Your task to perform on an android device: clear all cookies in the chrome app Image 0: 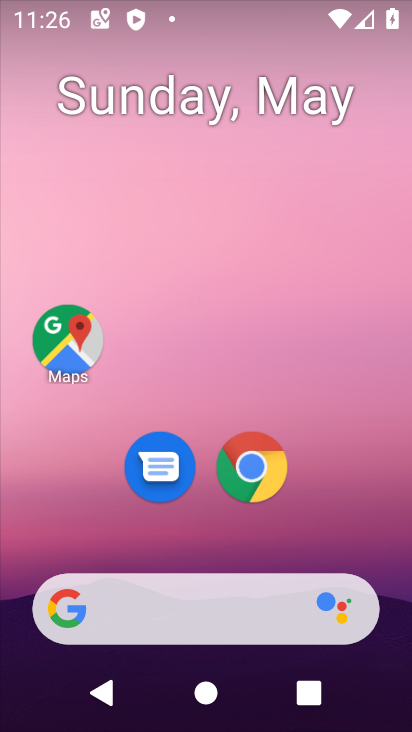
Step 0: click (261, 475)
Your task to perform on an android device: clear all cookies in the chrome app Image 1: 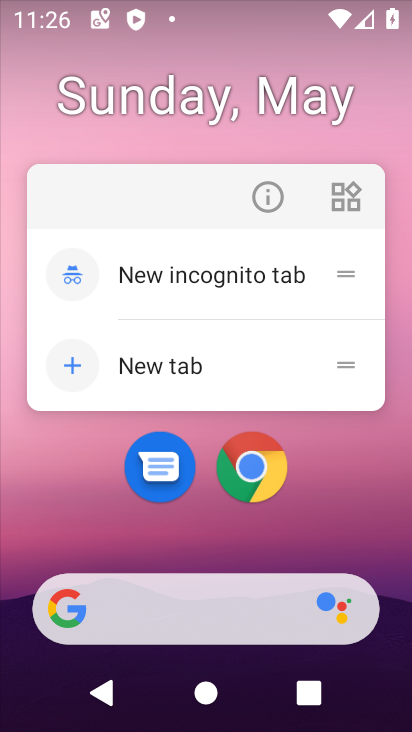
Step 1: click (255, 470)
Your task to perform on an android device: clear all cookies in the chrome app Image 2: 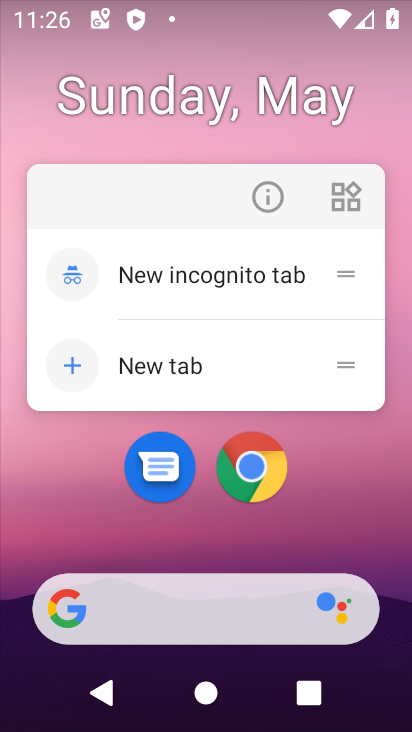
Step 2: click (261, 472)
Your task to perform on an android device: clear all cookies in the chrome app Image 3: 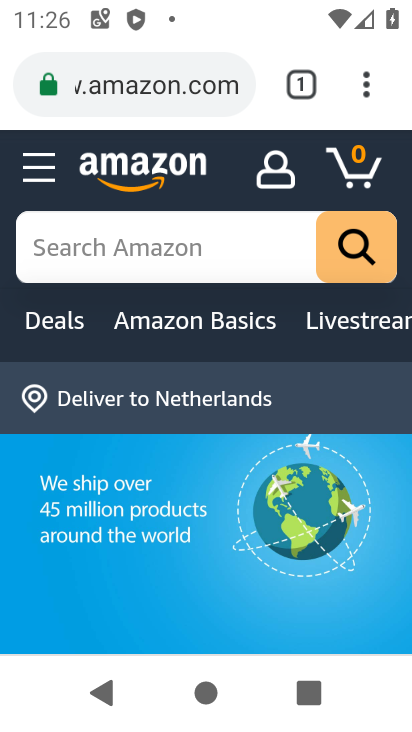
Step 3: click (364, 87)
Your task to perform on an android device: clear all cookies in the chrome app Image 4: 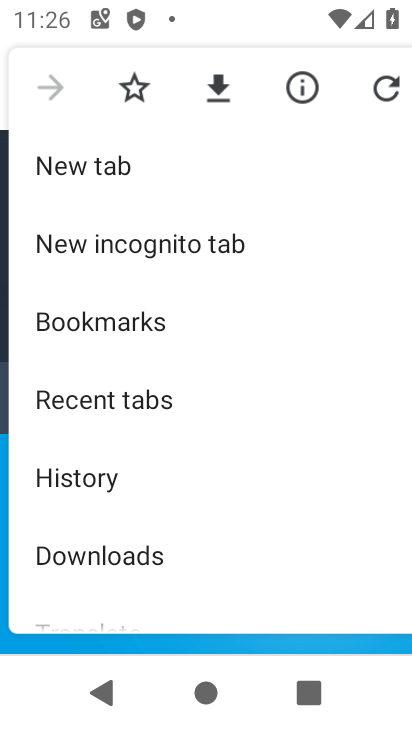
Step 4: drag from (247, 554) to (250, 127)
Your task to perform on an android device: clear all cookies in the chrome app Image 5: 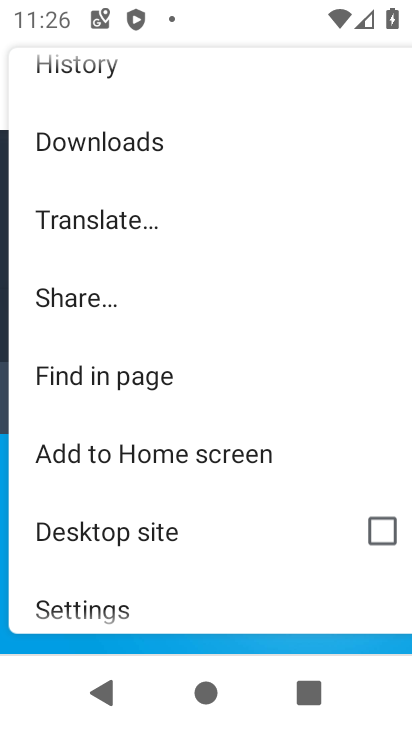
Step 5: click (103, 609)
Your task to perform on an android device: clear all cookies in the chrome app Image 6: 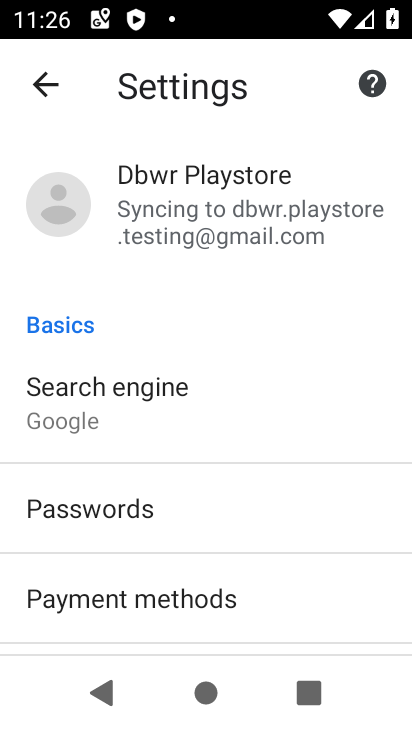
Step 6: drag from (276, 510) to (267, 125)
Your task to perform on an android device: clear all cookies in the chrome app Image 7: 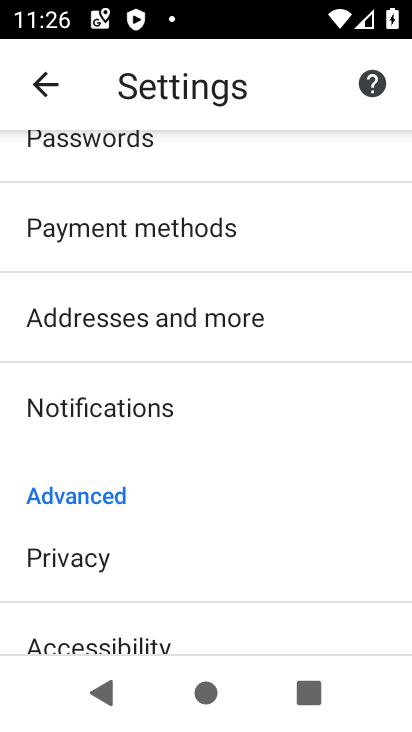
Step 7: drag from (261, 281) to (255, 175)
Your task to perform on an android device: clear all cookies in the chrome app Image 8: 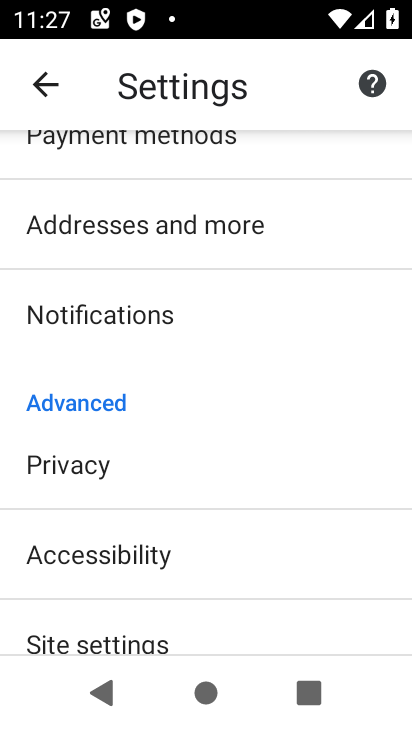
Step 8: click (91, 469)
Your task to perform on an android device: clear all cookies in the chrome app Image 9: 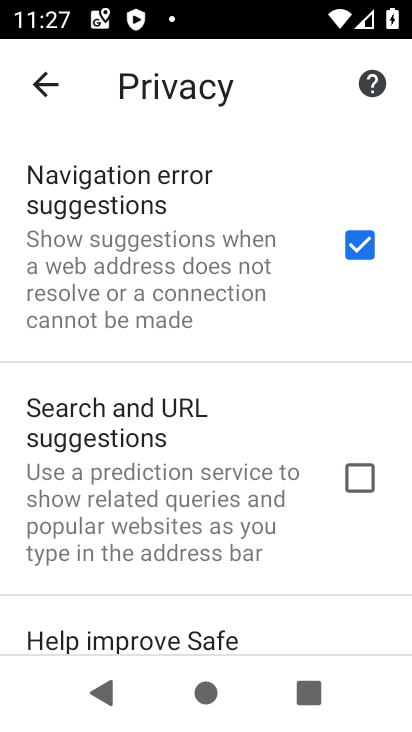
Step 9: drag from (191, 548) to (190, 117)
Your task to perform on an android device: clear all cookies in the chrome app Image 10: 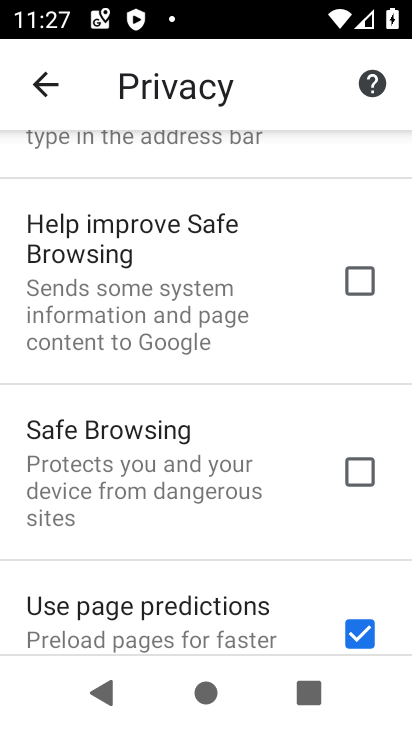
Step 10: drag from (162, 592) to (148, 58)
Your task to perform on an android device: clear all cookies in the chrome app Image 11: 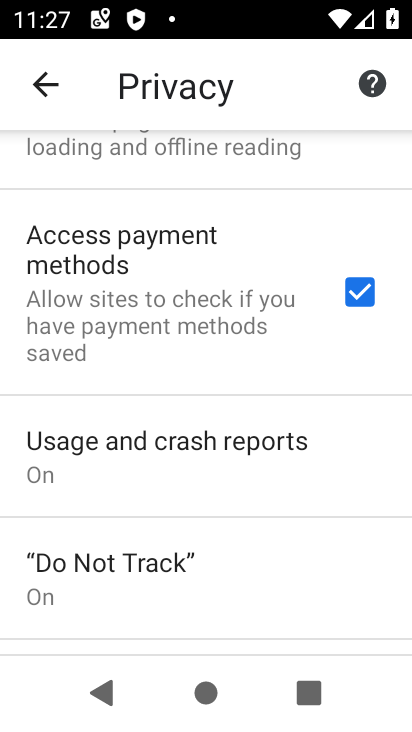
Step 11: drag from (121, 504) to (127, 88)
Your task to perform on an android device: clear all cookies in the chrome app Image 12: 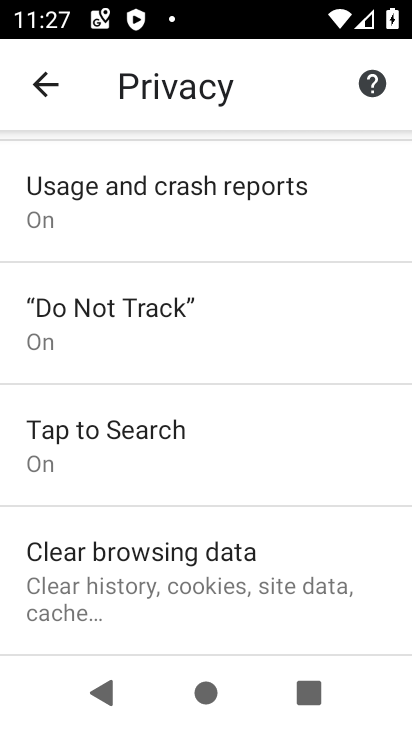
Step 12: click (107, 576)
Your task to perform on an android device: clear all cookies in the chrome app Image 13: 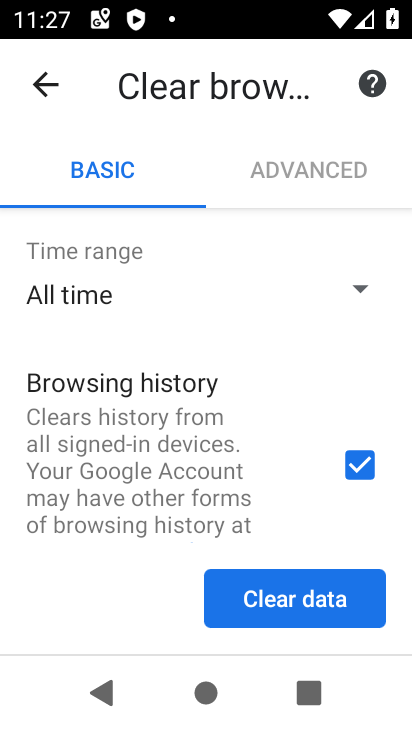
Step 13: click (359, 471)
Your task to perform on an android device: clear all cookies in the chrome app Image 14: 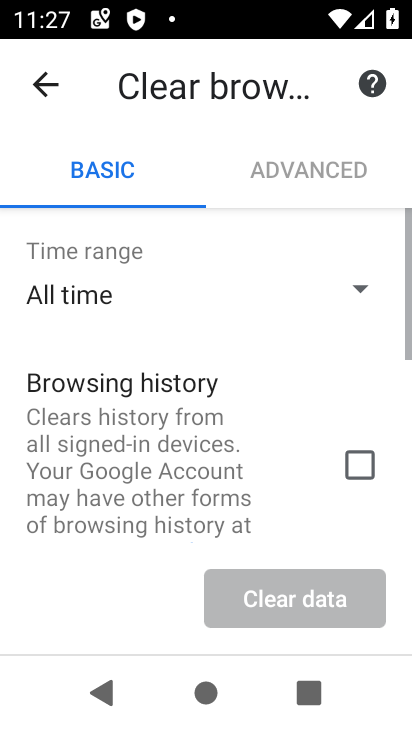
Step 14: drag from (126, 478) to (117, 72)
Your task to perform on an android device: clear all cookies in the chrome app Image 15: 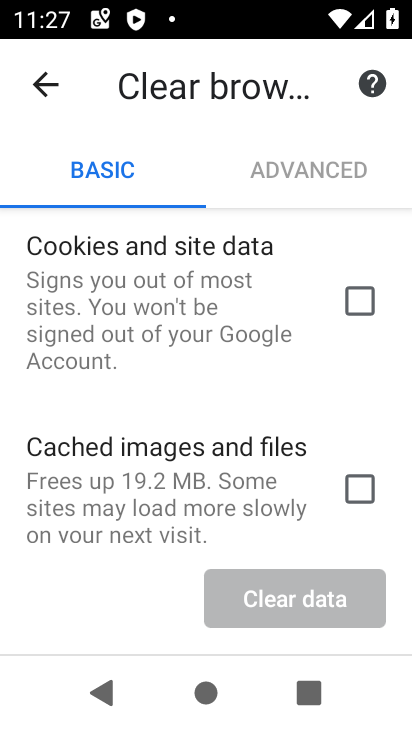
Step 15: click (361, 286)
Your task to perform on an android device: clear all cookies in the chrome app Image 16: 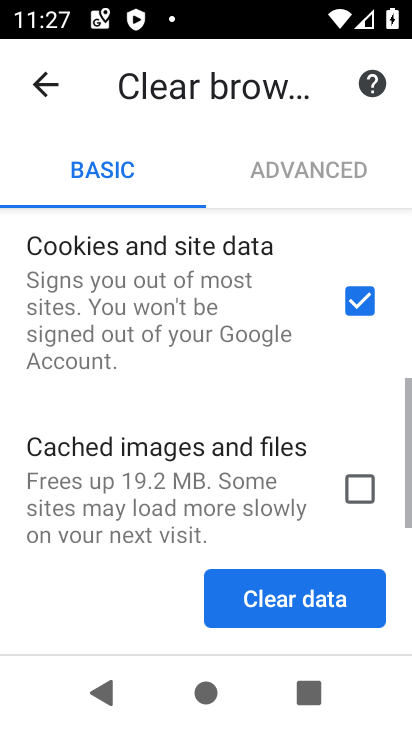
Step 16: drag from (118, 320) to (148, 84)
Your task to perform on an android device: clear all cookies in the chrome app Image 17: 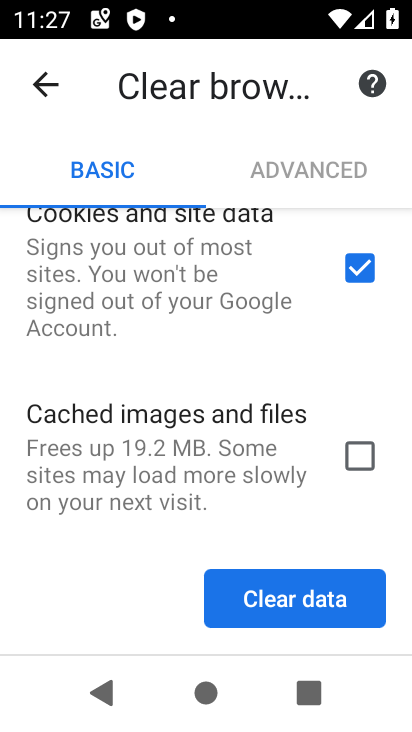
Step 17: click (291, 597)
Your task to perform on an android device: clear all cookies in the chrome app Image 18: 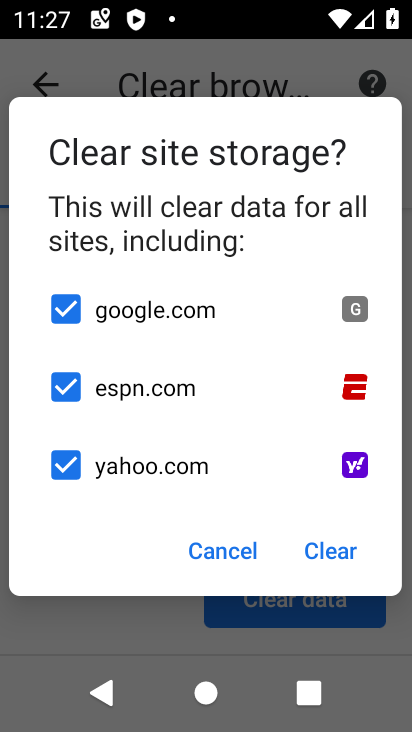
Step 18: click (341, 554)
Your task to perform on an android device: clear all cookies in the chrome app Image 19: 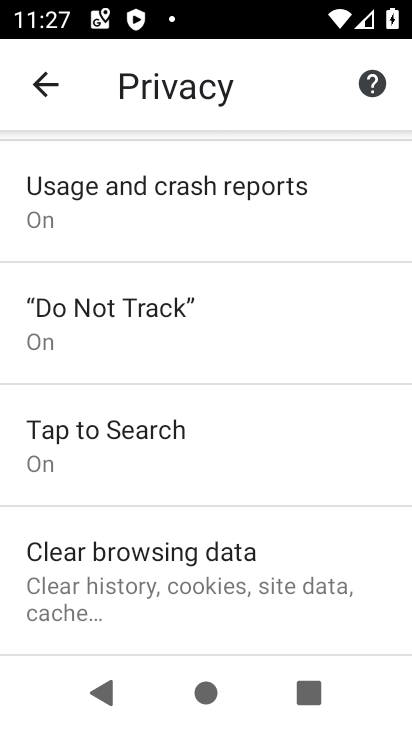
Step 19: task complete